Your task to perform on an android device: Open calendar and show me the fourth week of next month Image 0: 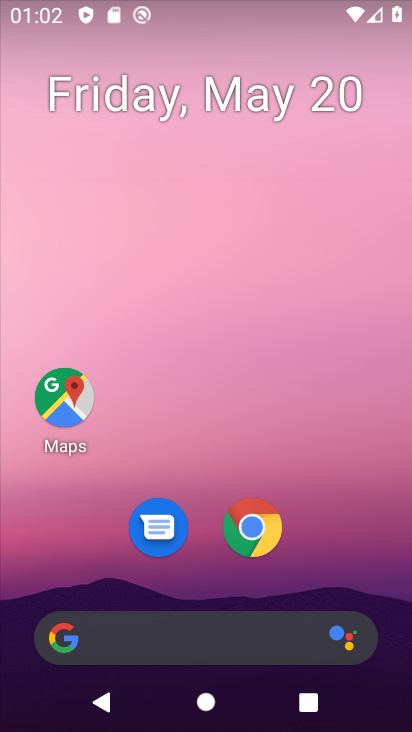
Step 0: drag from (207, 579) to (226, 27)
Your task to perform on an android device: Open calendar and show me the fourth week of next month Image 1: 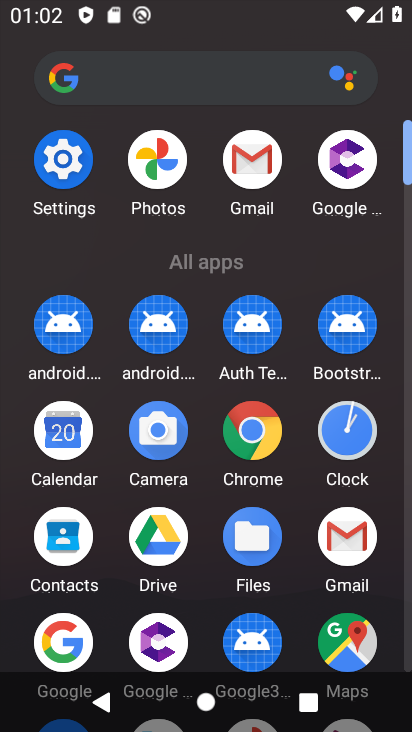
Step 1: click (65, 423)
Your task to perform on an android device: Open calendar and show me the fourth week of next month Image 2: 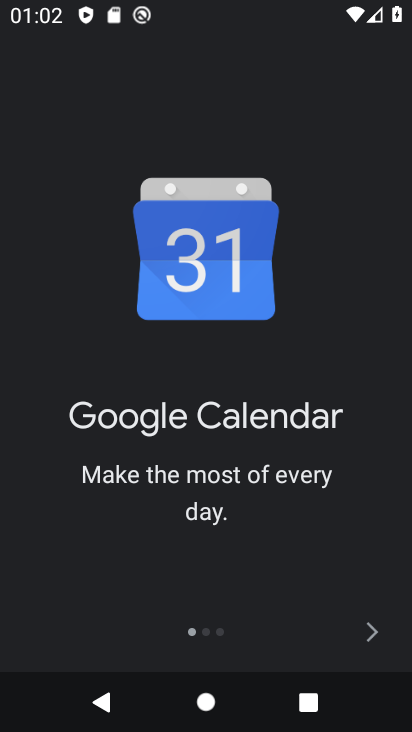
Step 2: click (370, 628)
Your task to perform on an android device: Open calendar and show me the fourth week of next month Image 3: 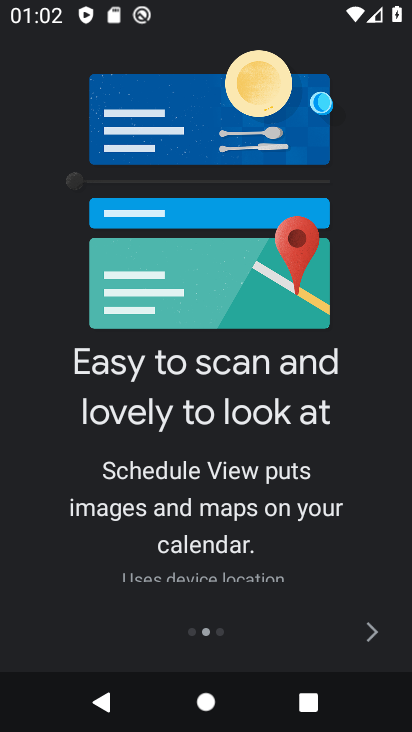
Step 3: click (370, 628)
Your task to perform on an android device: Open calendar and show me the fourth week of next month Image 4: 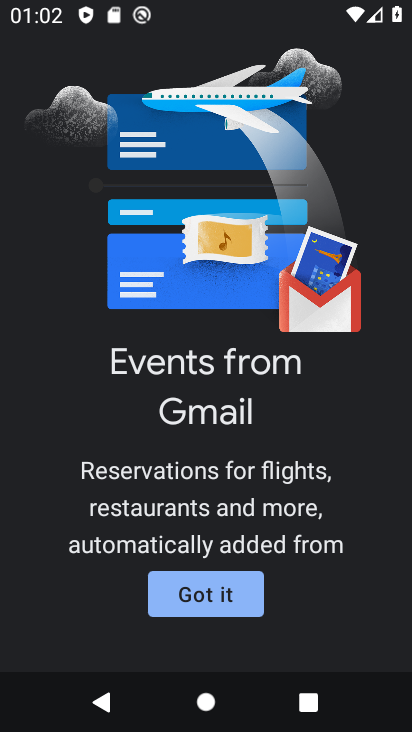
Step 4: click (210, 580)
Your task to perform on an android device: Open calendar and show me the fourth week of next month Image 5: 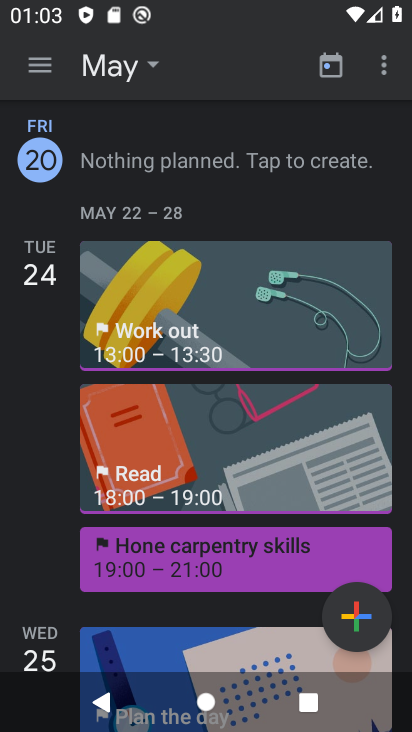
Step 5: click (151, 66)
Your task to perform on an android device: Open calendar and show me the fourth week of next month Image 6: 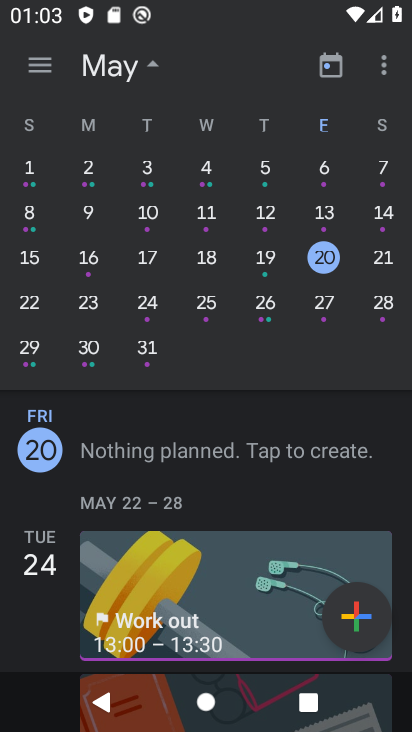
Step 6: drag from (353, 214) to (1, 239)
Your task to perform on an android device: Open calendar and show me the fourth week of next month Image 7: 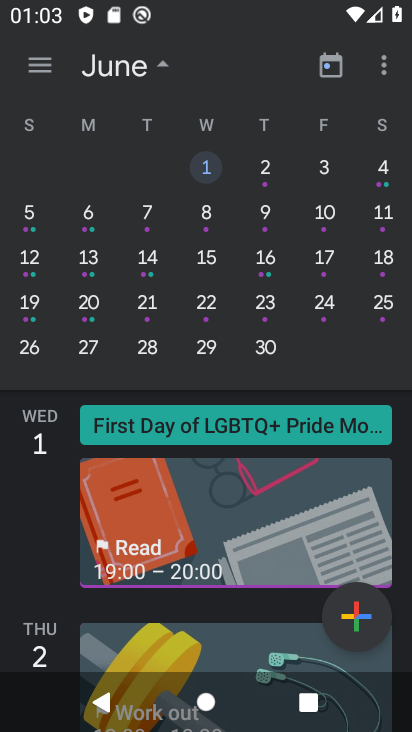
Step 7: click (34, 300)
Your task to perform on an android device: Open calendar and show me the fourth week of next month Image 8: 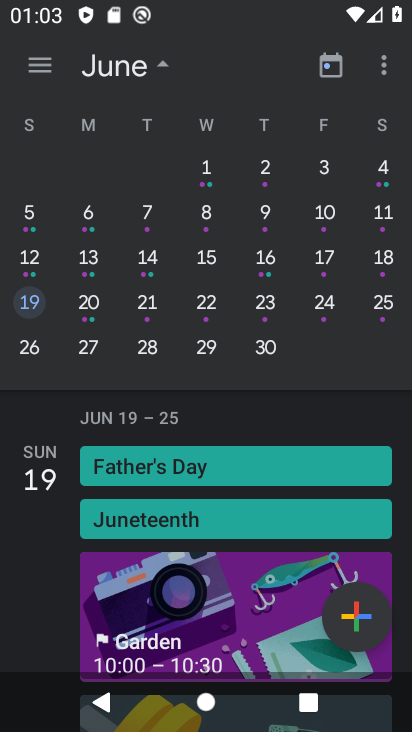
Step 8: click (165, 65)
Your task to perform on an android device: Open calendar and show me the fourth week of next month Image 9: 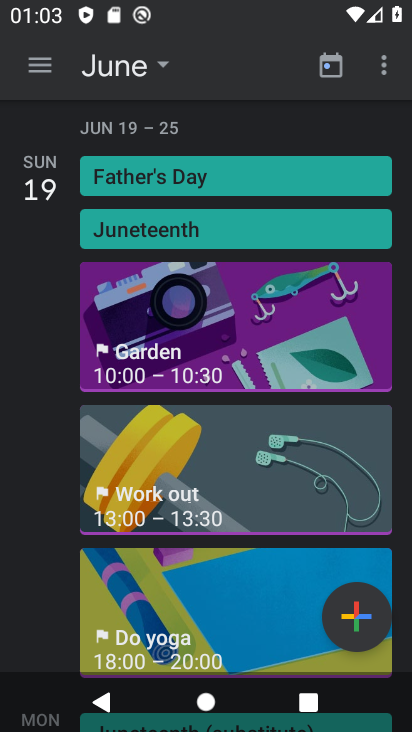
Step 9: task complete